Your task to perform on an android device: open app "LiveIn - Share Your Moment" (install if not already installed) and enter user name: "certifies@gmail.com" and password: "compartmented" Image 0: 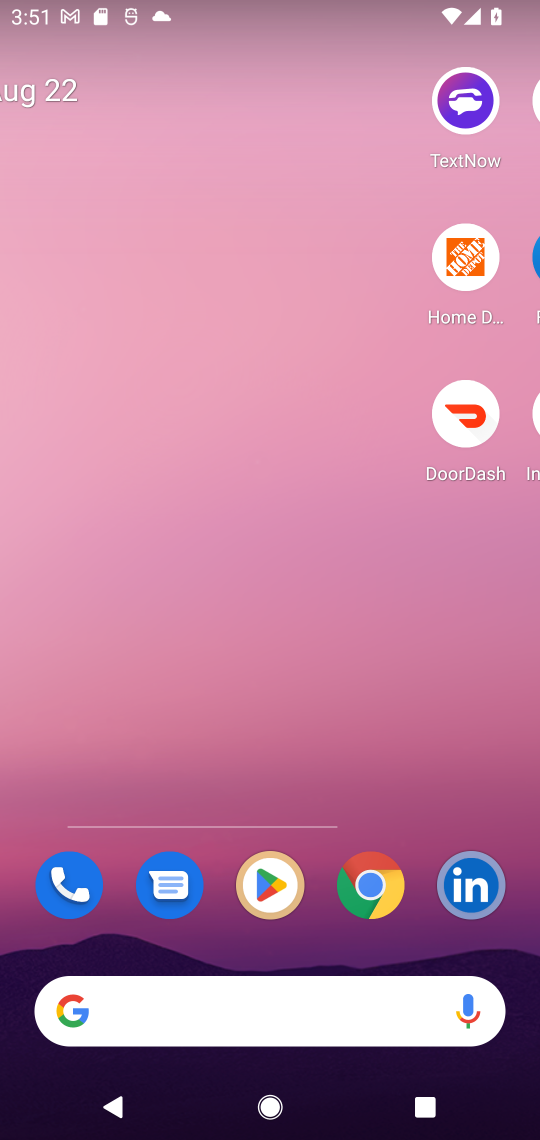
Step 0: press home button
Your task to perform on an android device: open app "LiveIn - Share Your Moment" (install if not already installed) and enter user name: "certifies@gmail.com" and password: "compartmented" Image 1: 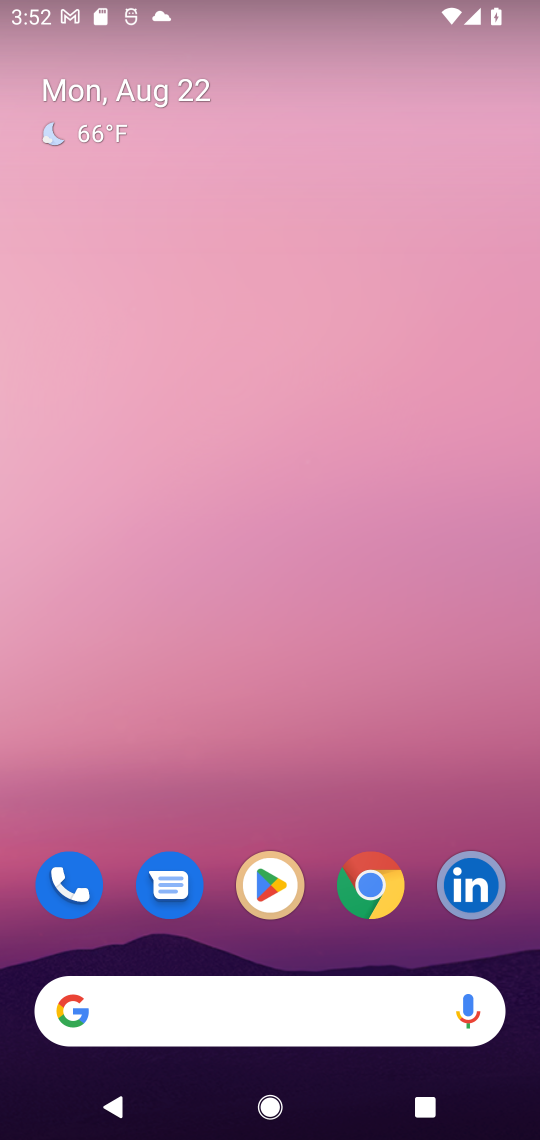
Step 1: click (266, 870)
Your task to perform on an android device: open app "LiveIn - Share Your Moment" (install if not already installed) and enter user name: "certifies@gmail.com" and password: "compartmented" Image 2: 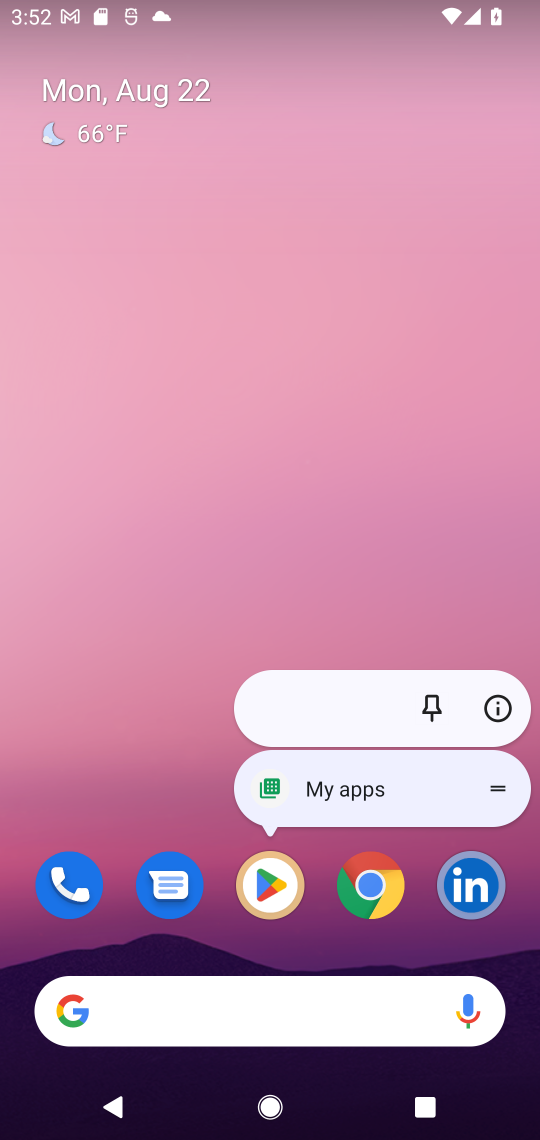
Step 2: click (263, 872)
Your task to perform on an android device: open app "LiveIn - Share Your Moment" (install if not already installed) and enter user name: "certifies@gmail.com" and password: "compartmented" Image 3: 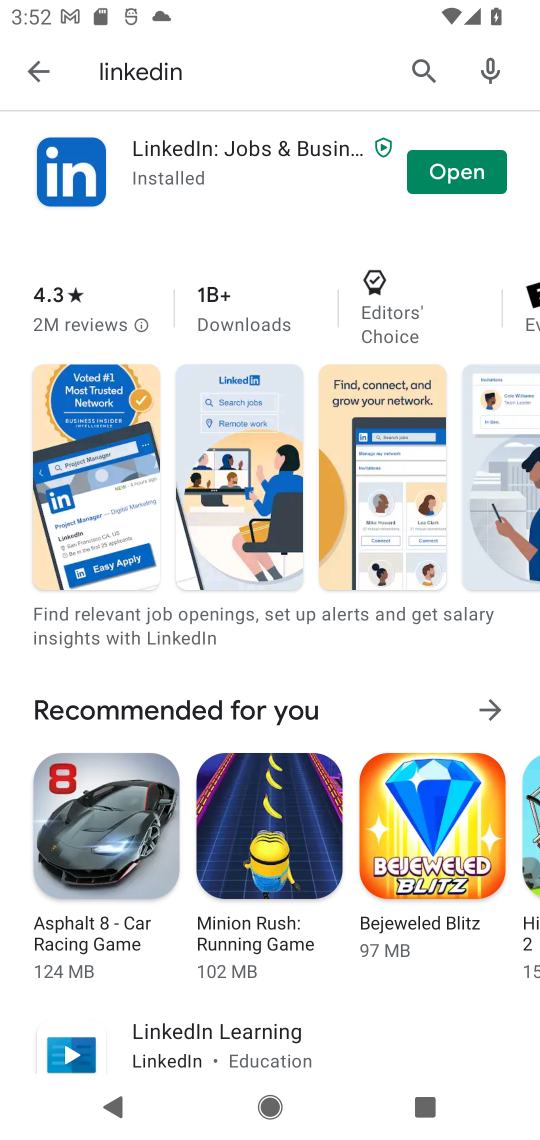
Step 3: click (420, 66)
Your task to perform on an android device: open app "LiveIn - Share Your Moment" (install if not already installed) and enter user name: "certifies@gmail.com" and password: "compartmented" Image 4: 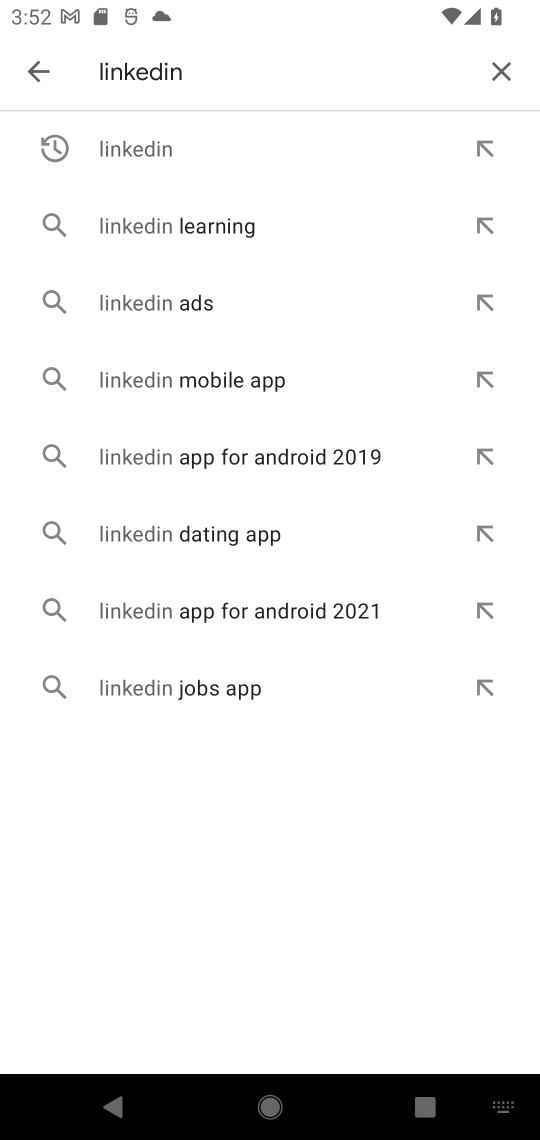
Step 4: click (500, 70)
Your task to perform on an android device: open app "LiveIn - Share Your Moment" (install if not already installed) and enter user name: "certifies@gmail.com" and password: "compartmented" Image 5: 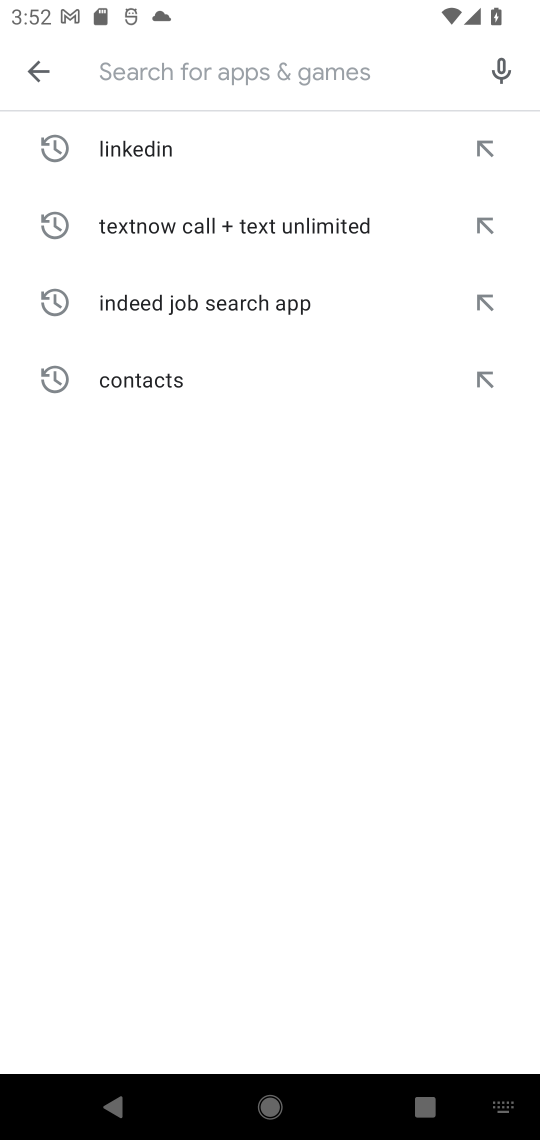
Step 5: type "LiveIn - Share Your Moment"
Your task to perform on an android device: open app "LiveIn - Share Your Moment" (install if not already installed) and enter user name: "certifies@gmail.com" and password: "compartmented" Image 6: 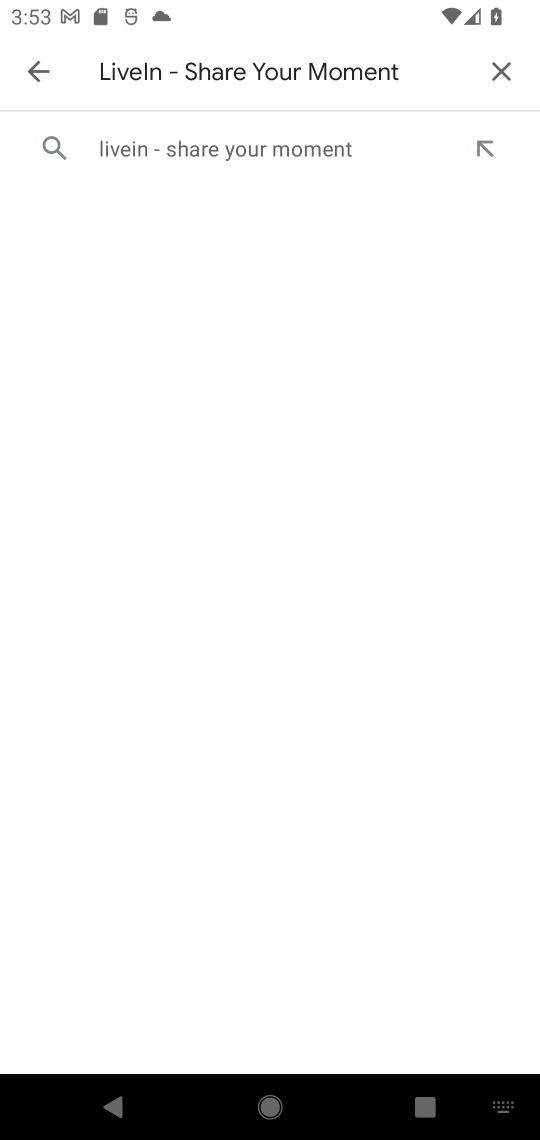
Step 6: click (297, 142)
Your task to perform on an android device: open app "LiveIn - Share Your Moment" (install if not already installed) and enter user name: "certifies@gmail.com" and password: "compartmented" Image 7: 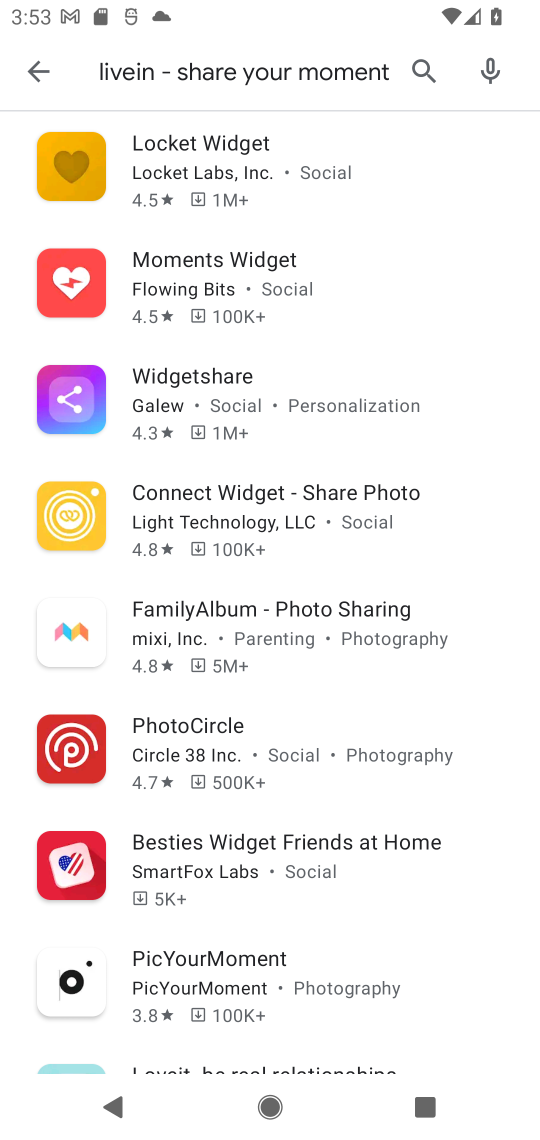
Step 7: task complete